Your task to perform on an android device: clear history in the chrome app Image 0: 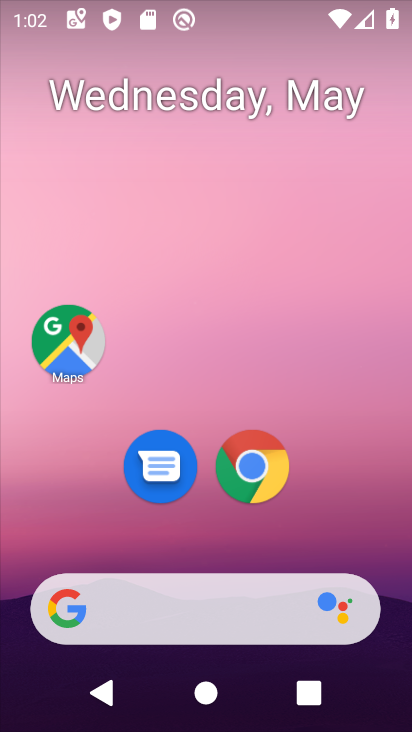
Step 0: click (256, 465)
Your task to perform on an android device: clear history in the chrome app Image 1: 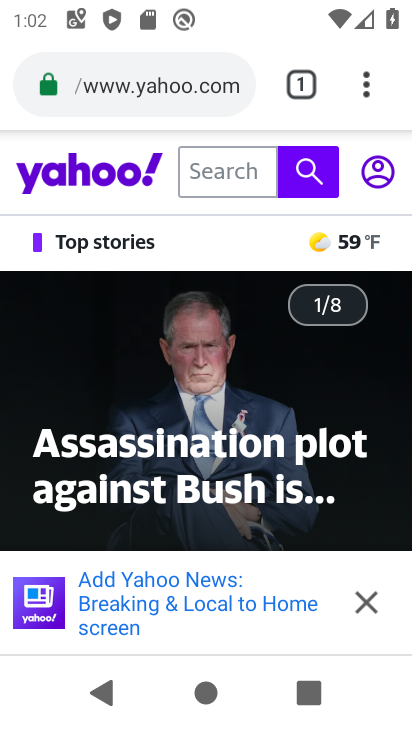
Step 1: click (358, 79)
Your task to perform on an android device: clear history in the chrome app Image 2: 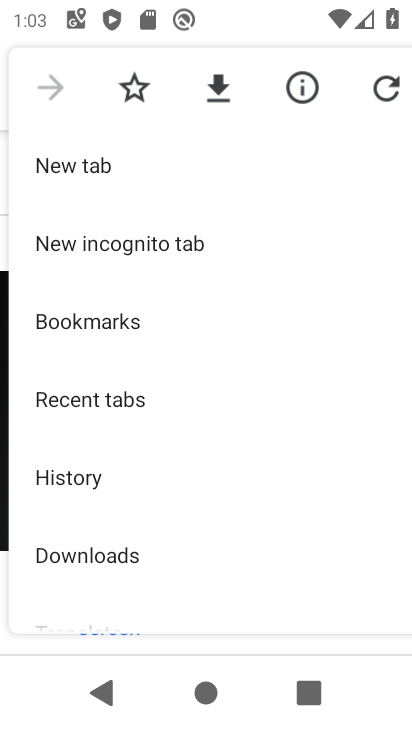
Step 2: click (101, 468)
Your task to perform on an android device: clear history in the chrome app Image 3: 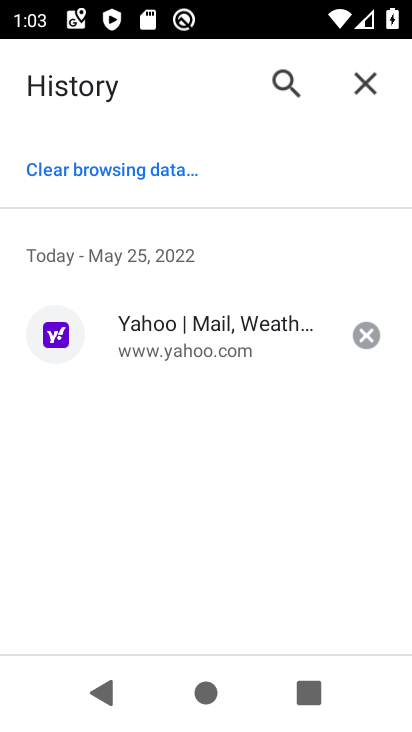
Step 3: click (133, 170)
Your task to perform on an android device: clear history in the chrome app Image 4: 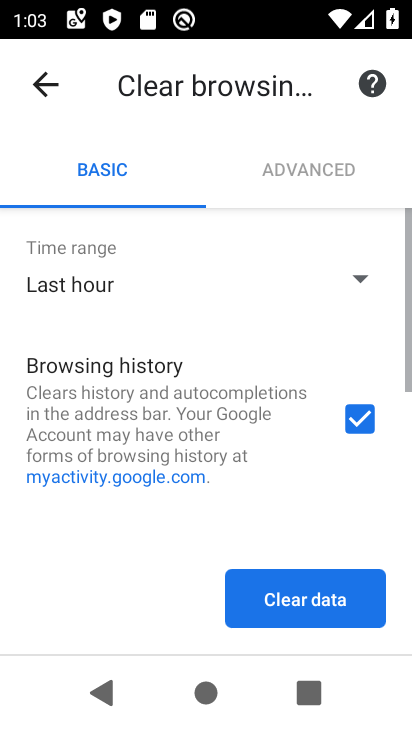
Step 4: drag from (262, 484) to (264, 78)
Your task to perform on an android device: clear history in the chrome app Image 5: 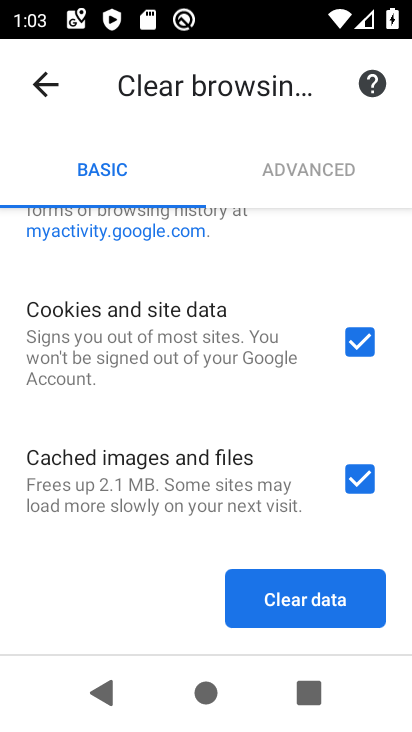
Step 5: click (361, 337)
Your task to perform on an android device: clear history in the chrome app Image 6: 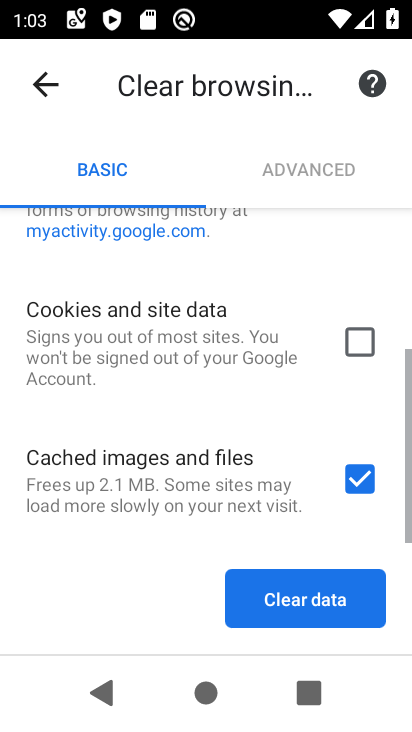
Step 6: click (358, 486)
Your task to perform on an android device: clear history in the chrome app Image 7: 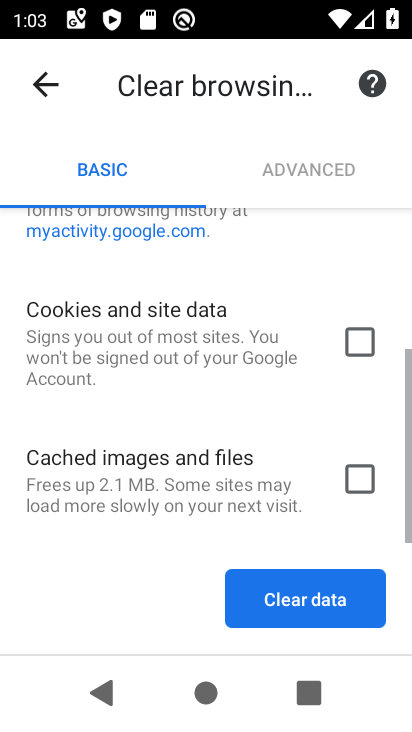
Step 7: click (302, 603)
Your task to perform on an android device: clear history in the chrome app Image 8: 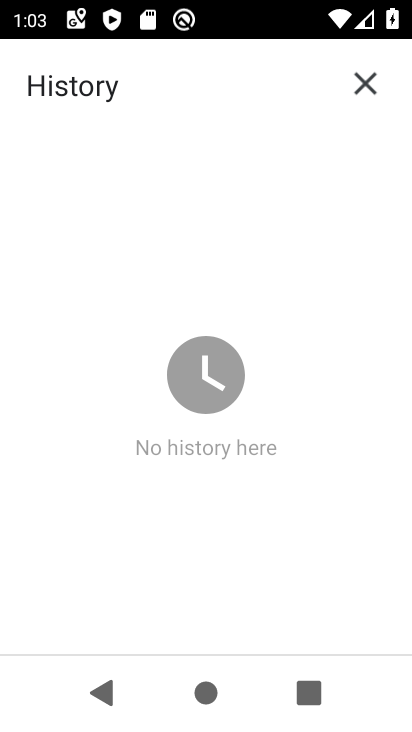
Step 8: task complete